Your task to perform on an android device: Open Google Image 0: 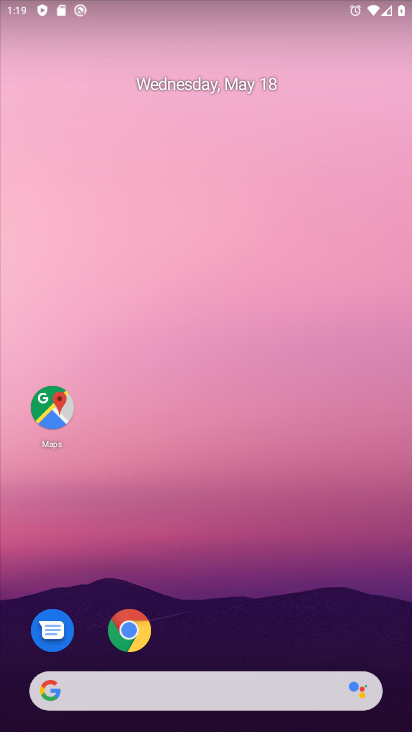
Step 0: click (49, 693)
Your task to perform on an android device: Open Google Image 1: 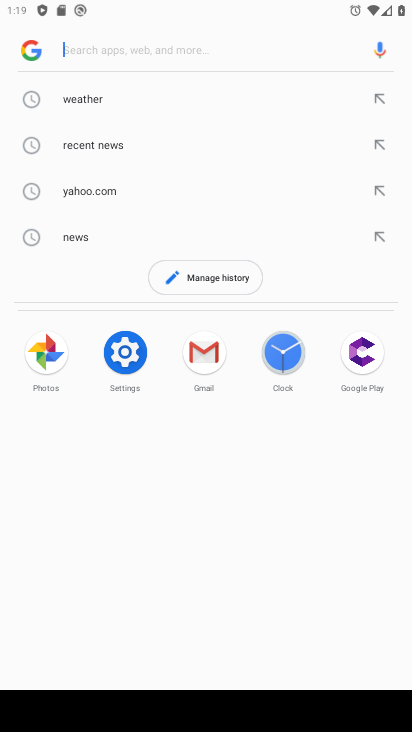
Step 1: click (38, 51)
Your task to perform on an android device: Open Google Image 2: 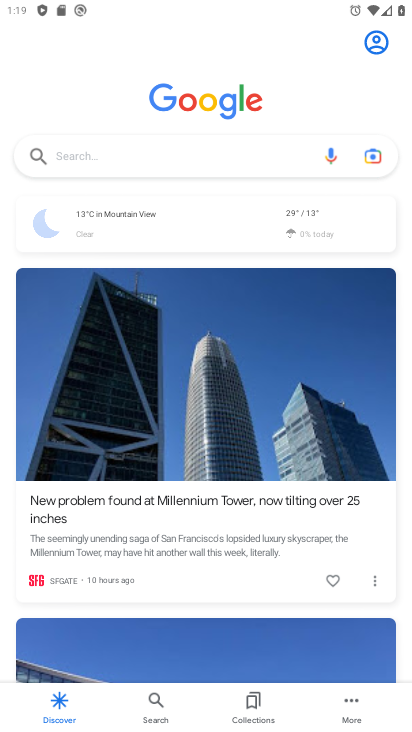
Step 2: task complete